Your task to perform on an android device: add a label to a message in the gmail app Image 0: 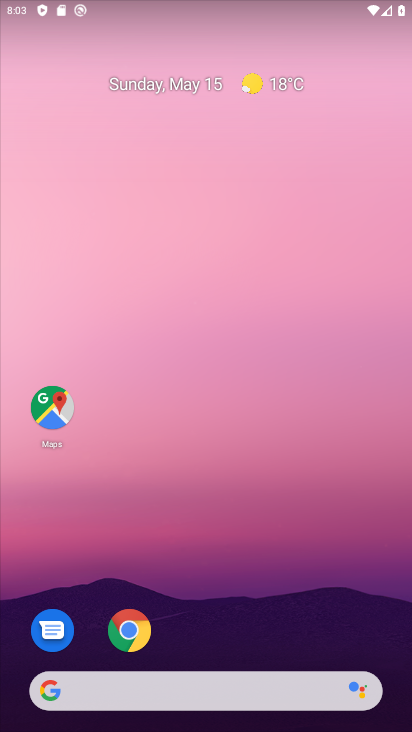
Step 0: click (271, 305)
Your task to perform on an android device: add a label to a message in the gmail app Image 1: 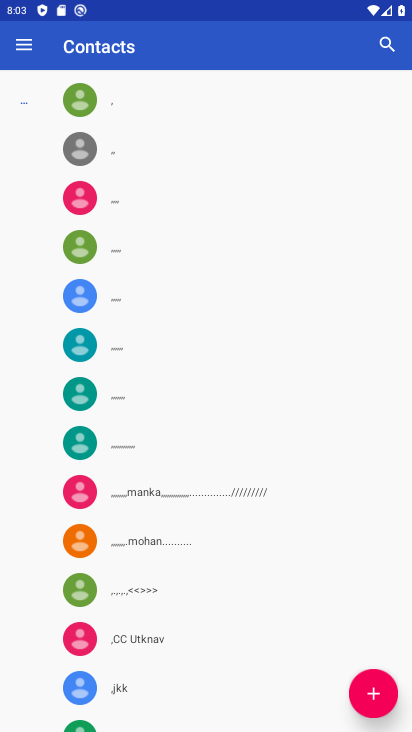
Step 1: press home button
Your task to perform on an android device: add a label to a message in the gmail app Image 2: 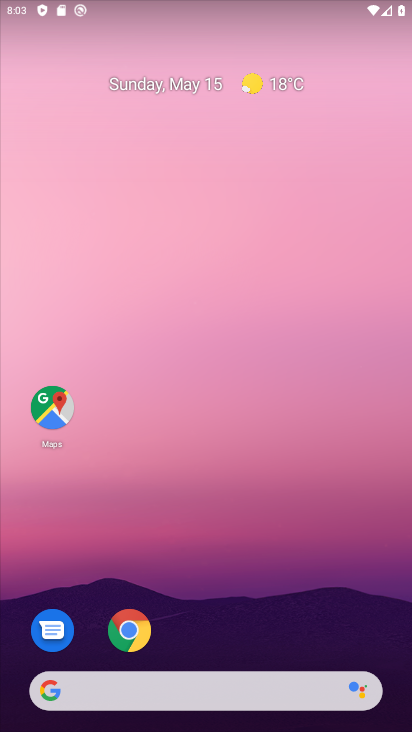
Step 2: drag from (173, 419) to (197, 215)
Your task to perform on an android device: add a label to a message in the gmail app Image 3: 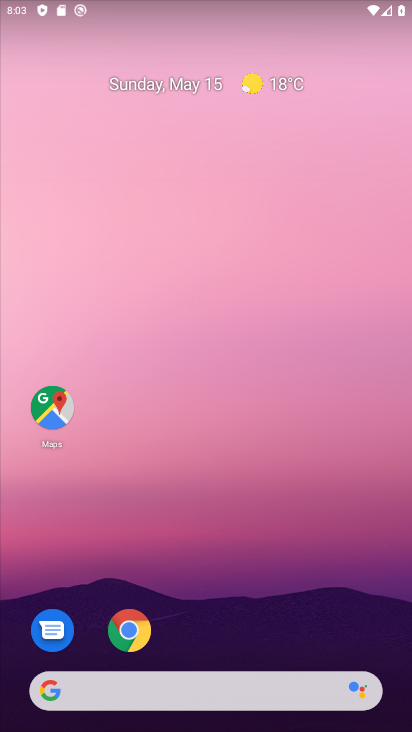
Step 3: drag from (174, 653) to (223, 298)
Your task to perform on an android device: add a label to a message in the gmail app Image 4: 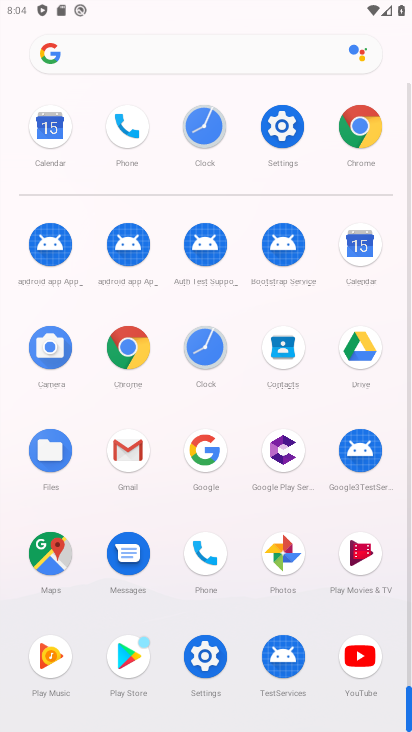
Step 4: click (132, 456)
Your task to perform on an android device: add a label to a message in the gmail app Image 5: 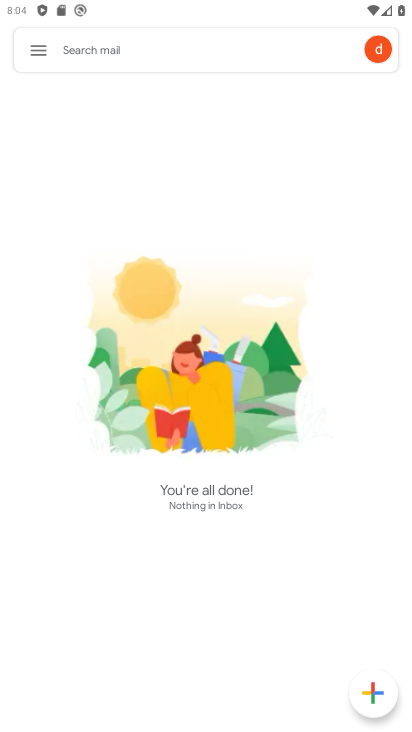
Step 5: click (42, 43)
Your task to perform on an android device: add a label to a message in the gmail app Image 6: 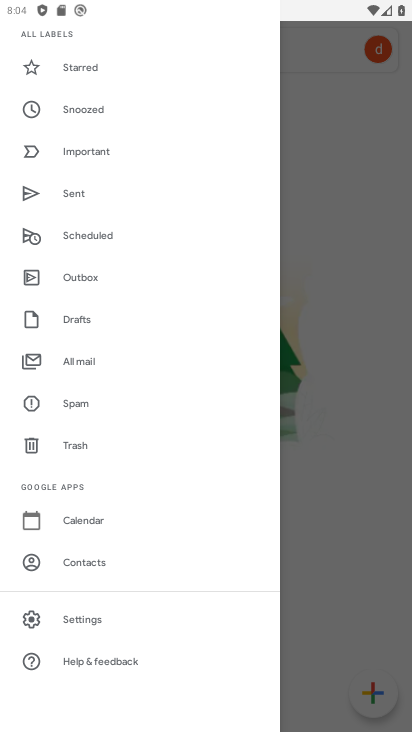
Step 6: drag from (110, 231) to (207, 677)
Your task to perform on an android device: add a label to a message in the gmail app Image 7: 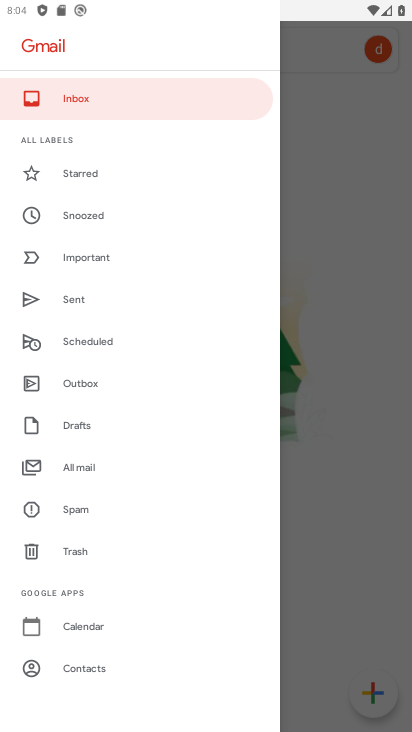
Step 7: click (117, 109)
Your task to perform on an android device: add a label to a message in the gmail app Image 8: 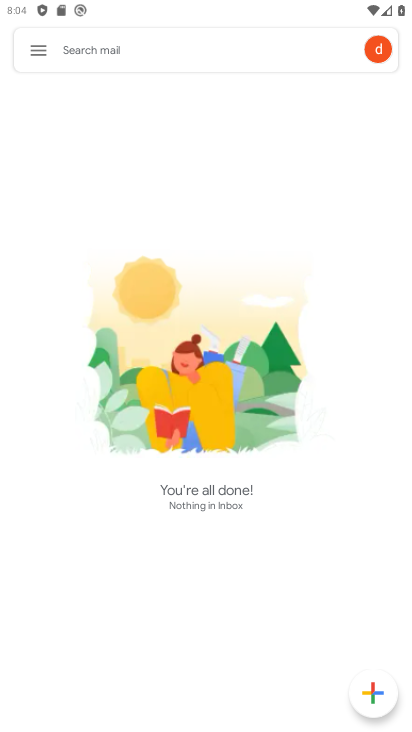
Step 8: task complete